Your task to perform on an android device: Go to Google maps Image 0: 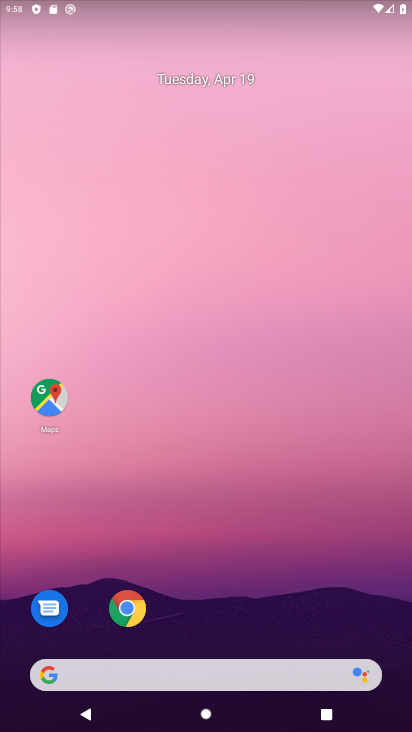
Step 0: drag from (359, 619) to (283, 154)
Your task to perform on an android device: Go to Google maps Image 1: 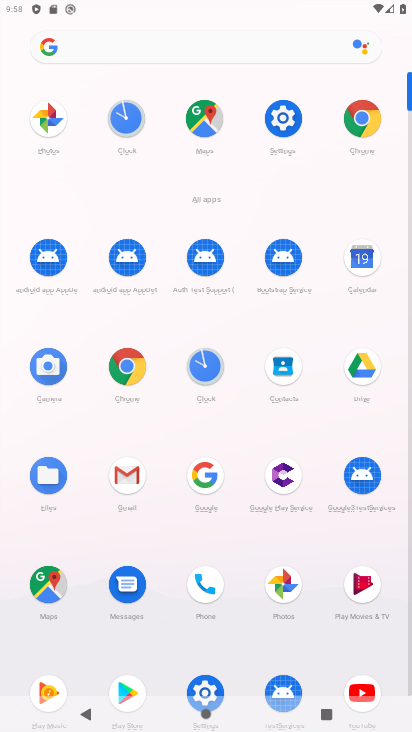
Step 1: click (197, 477)
Your task to perform on an android device: Go to Google maps Image 2: 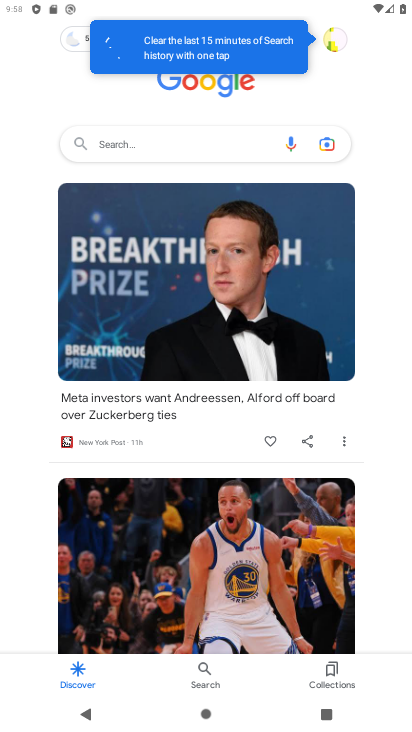
Step 2: task complete